Your task to perform on an android device: show emergency info Image 0: 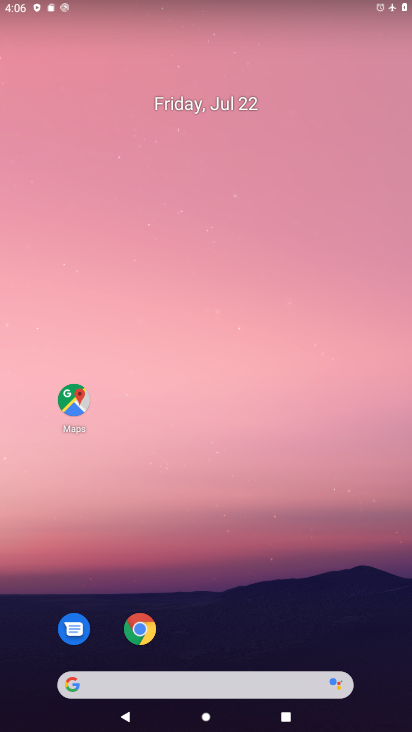
Step 0: drag from (243, 577) to (254, 77)
Your task to perform on an android device: show emergency info Image 1: 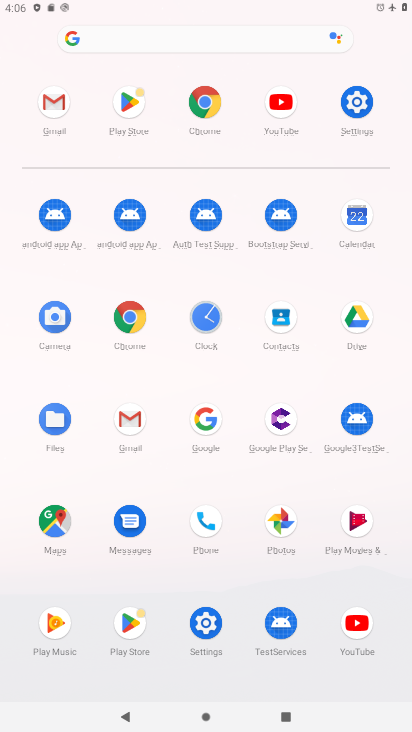
Step 1: click (366, 104)
Your task to perform on an android device: show emergency info Image 2: 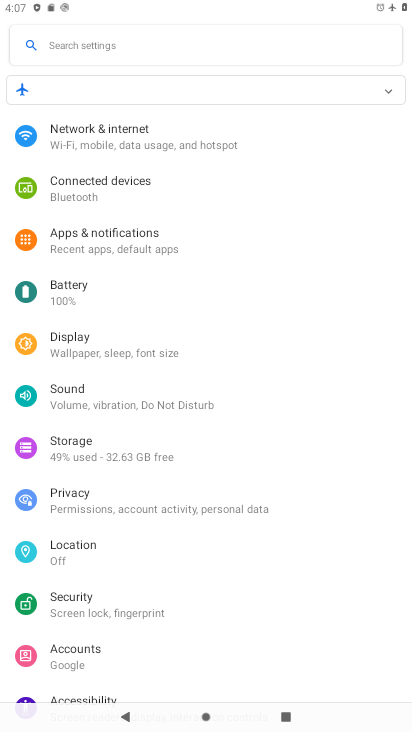
Step 2: drag from (170, 600) to (234, 67)
Your task to perform on an android device: show emergency info Image 3: 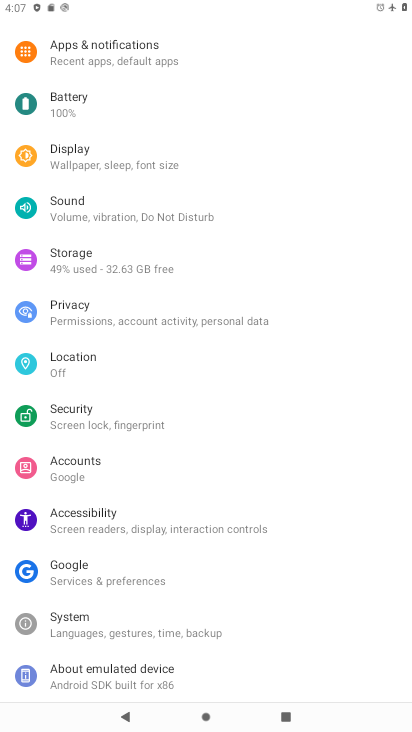
Step 3: click (119, 675)
Your task to perform on an android device: show emergency info Image 4: 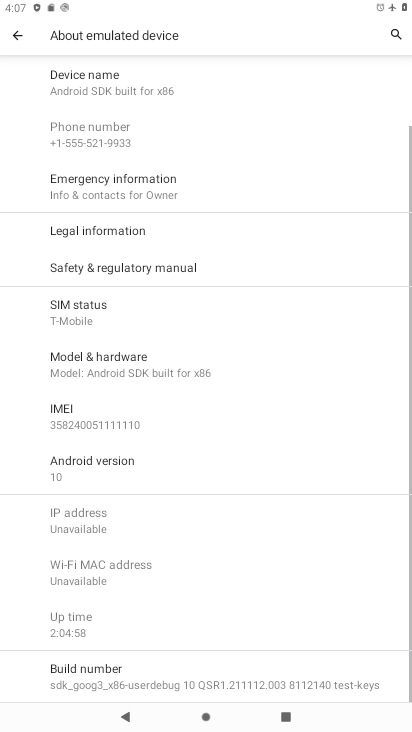
Step 4: click (137, 180)
Your task to perform on an android device: show emergency info Image 5: 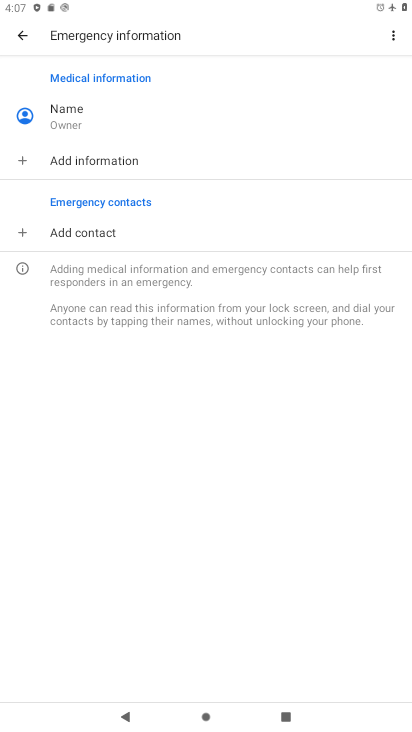
Step 5: task complete